Your task to perform on an android device: open a new tab in the chrome app Image 0: 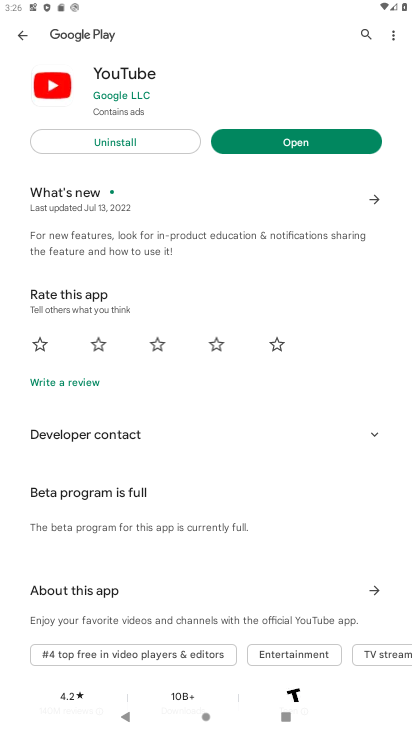
Step 0: press home button
Your task to perform on an android device: open a new tab in the chrome app Image 1: 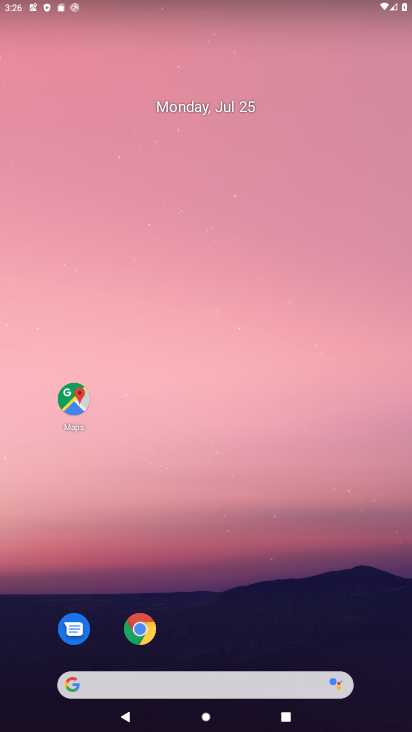
Step 1: drag from (134, 652) to (248, 1)
Your task to perform on an android device: open a new tab in the chrome app Image 2: 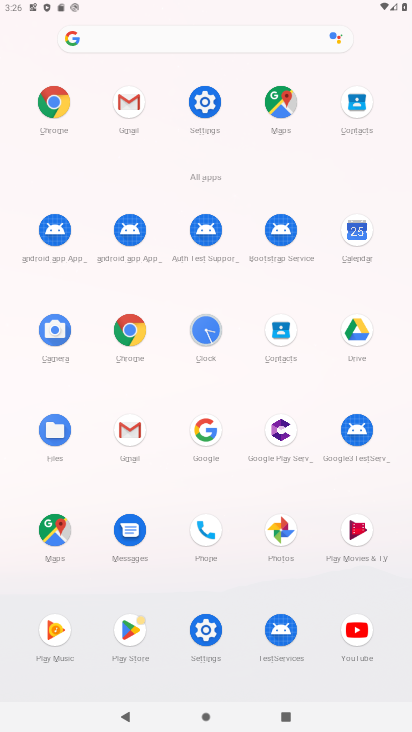
Step 2: click (124, 326)
Your task to perform on an android device: open a new tab in the chrome app Image 3: 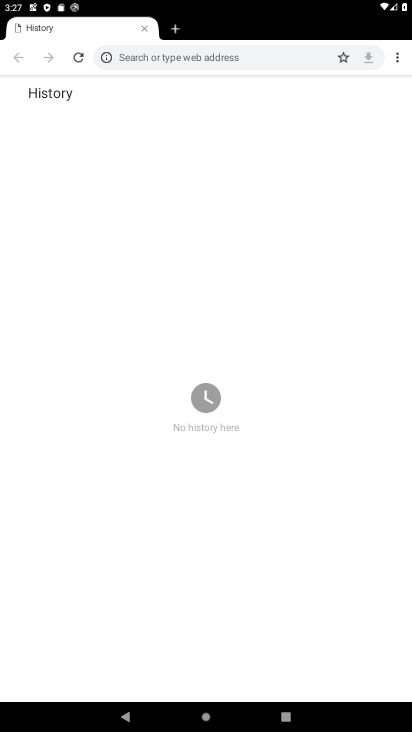
Step 3: task complete